Your task to perform on an android device: Show me recent news Image 0: 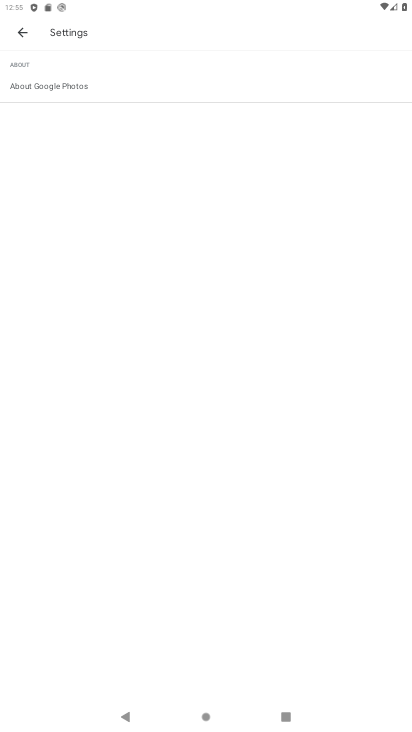
Step 0: press home button
Your task to perform on an android device: Show me recent news Image 1: 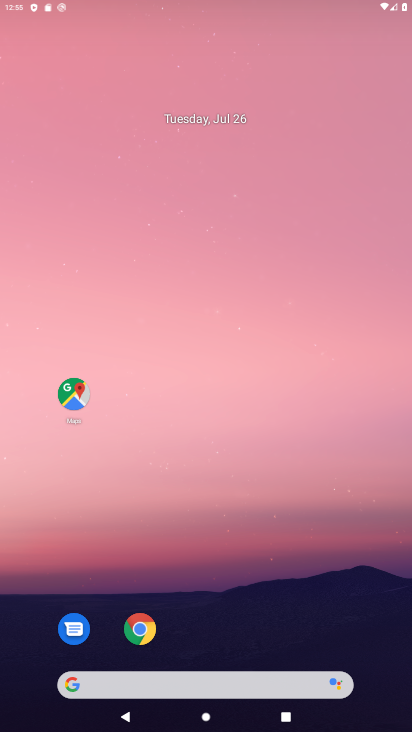
Step 1: task complete